Your task to perform on an android device: change keyboard looks Image 0: 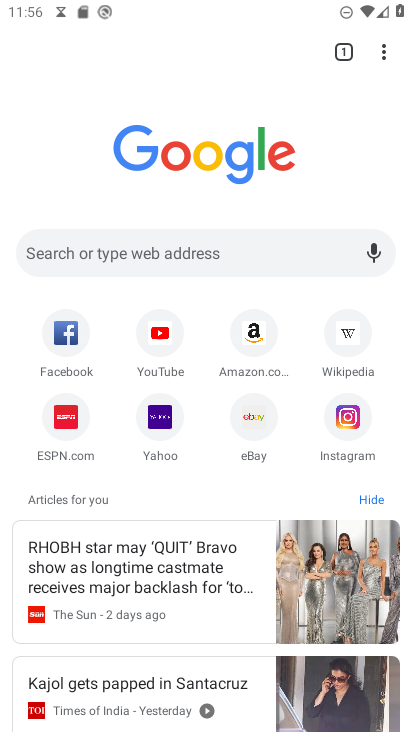
Step 0: press home button
Your task to perform on an android device: change keyboard looks Image 1: 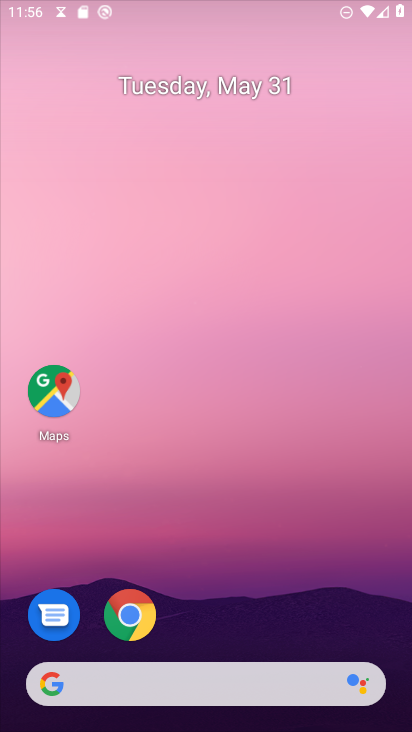
Step 1: drag from (215, 686) to (248, 121)
Your task to perform on an android device: change keyboard looks Image 2: 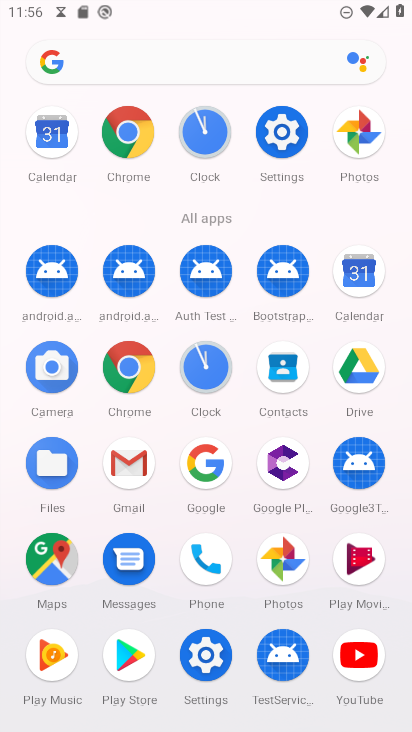
Step 2: click (268, 140)
Your task to perform on an android device: change keyboard looks Image 3: 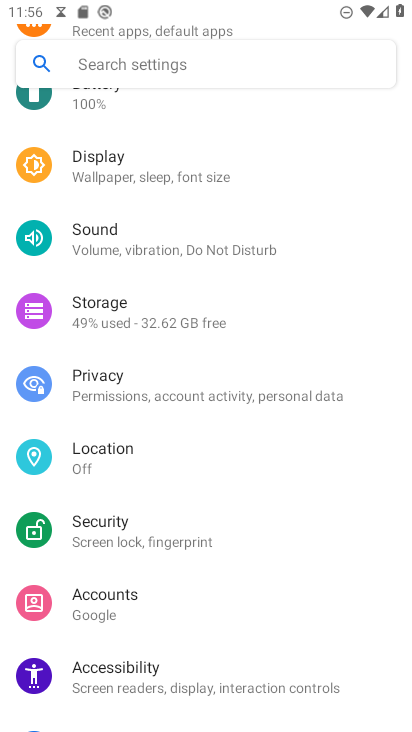
Step 3: drag from (247, 684) to (330, 190)
Your task to perform on an android device: change keyboard looks Image 4: 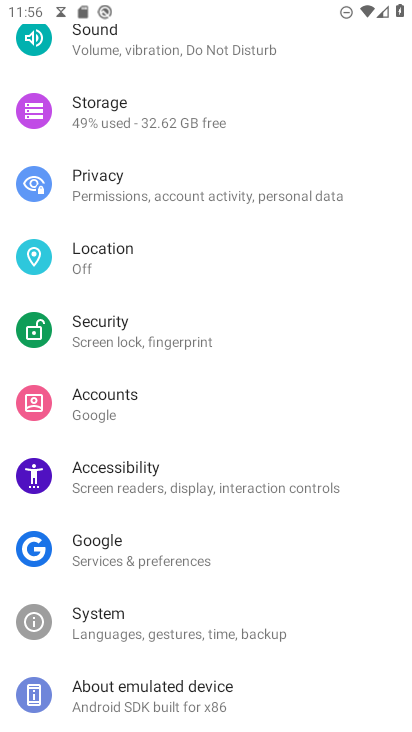
Step 4: click (257, 608)
Your task to perform on an android device: change keyboard looks Image 5: 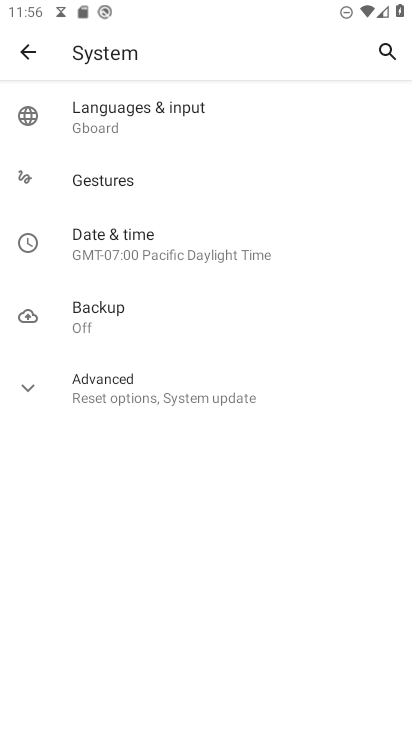
Step 5: click (186, 115)
Your task to perform on an android device: change keyboard looks Image 6: 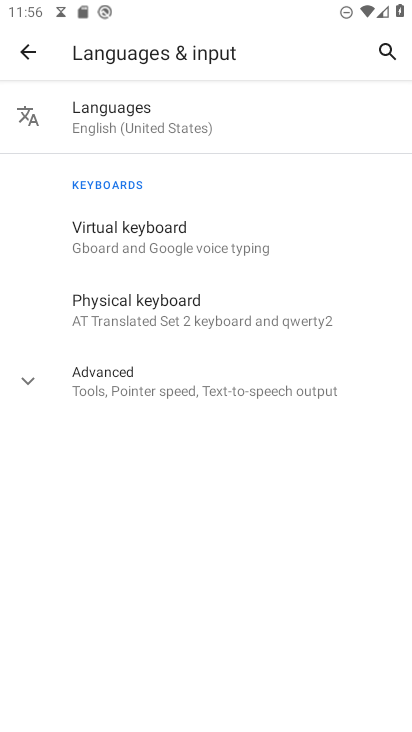
Step 6: click (155, 238)
Your task to perform on an android device: change keyboard looks Image 7: 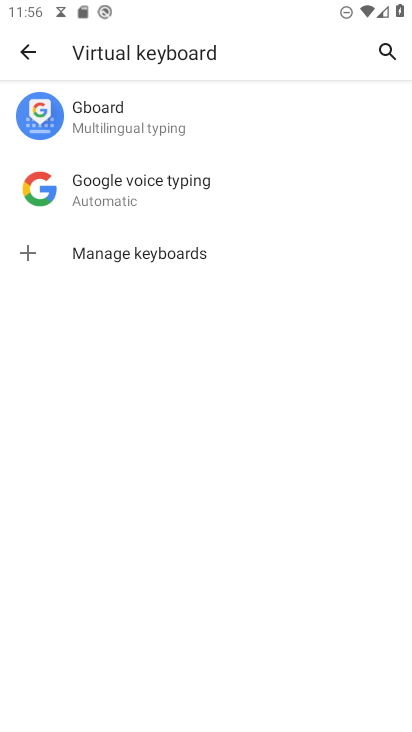
Step 7: click (151, 128)
Your task to perform on an android device: change keyboard looks Image 8: 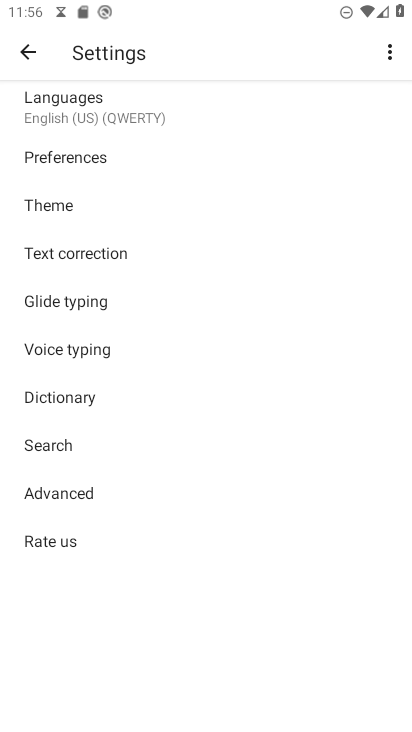
Step 8: click (110, 195)
Your task to perform on an android device: change keyboard looks Image 9: 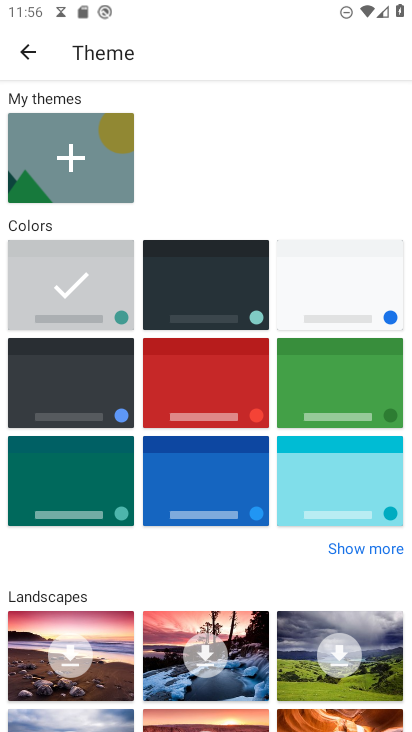
Step 9: click (231, 403)
Your task to perform on an android device: change keyboard looks Image 10: 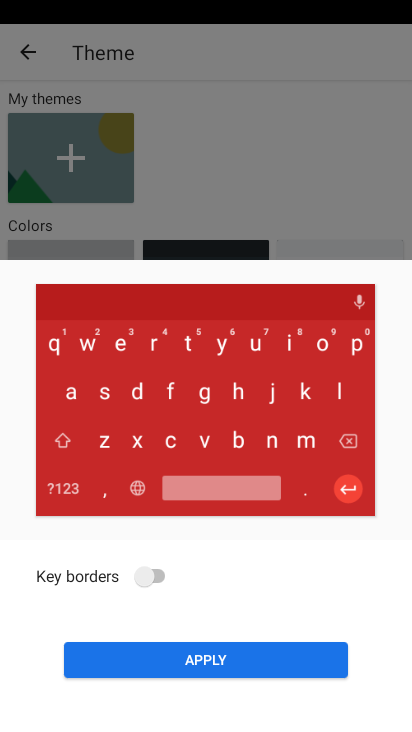
Step 10: click (256, 657)
Your task to perform on an android device: change keyboard looks Image 11: 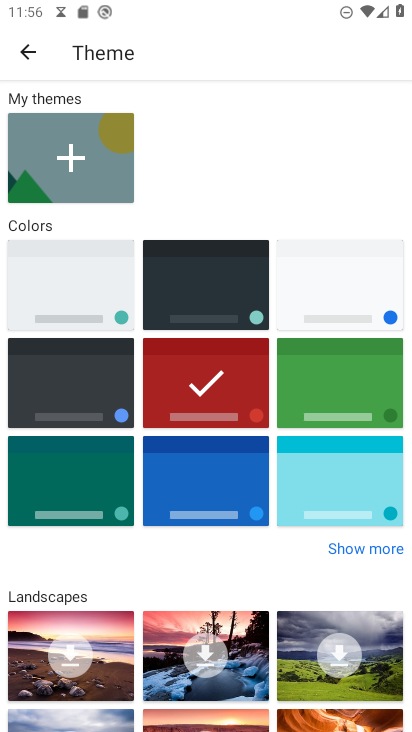
Step 11: task complete